Your task to perform on an android device: Open the phone app and click the voicemail tab. Image 0: 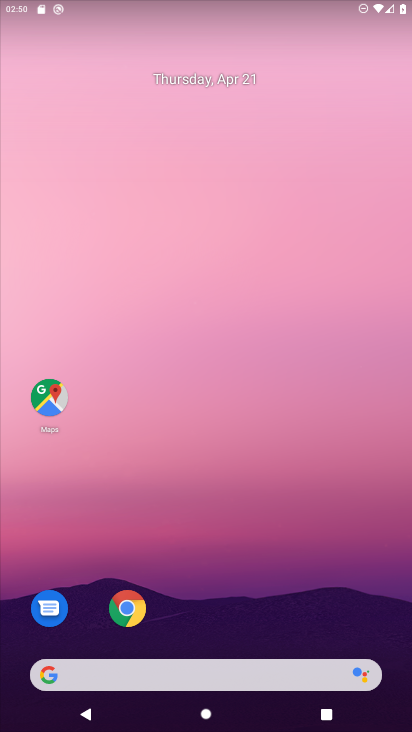
Step 0: drag from (212, 525) to (244, 224)
Your task to perform on an android device: Open the phone app and click the voicemail tab. Image 1: 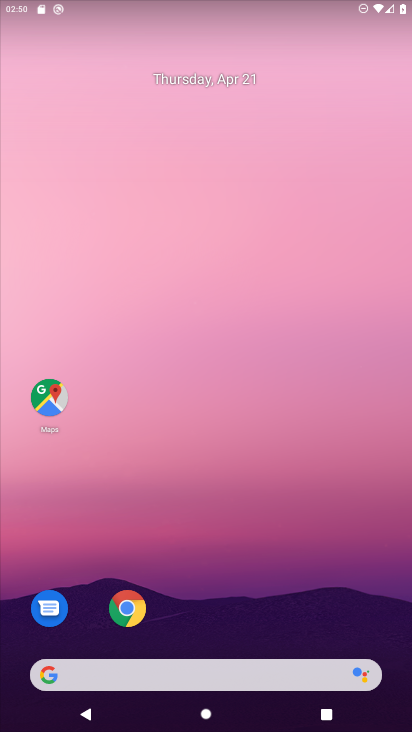
Step 1: drag from (238, 495) to (287, 107)
Your task to perform on an android device: Open the phone app and click the voicemail tab. Image 2: 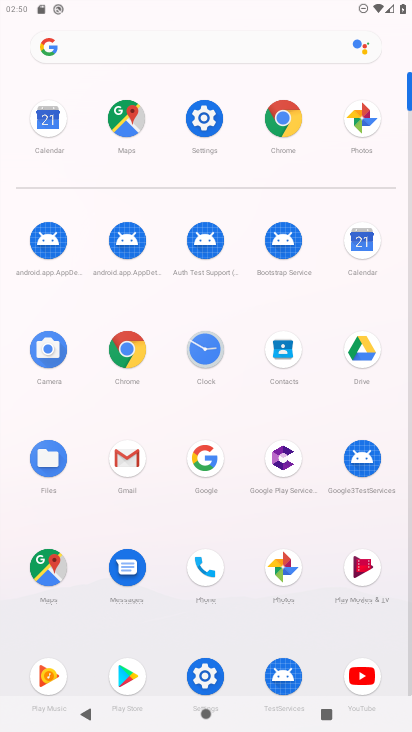
Step 2: click (204, 566)
Your task to perform on an android device: Open the phone app and click the voicemail tab. Image 3: 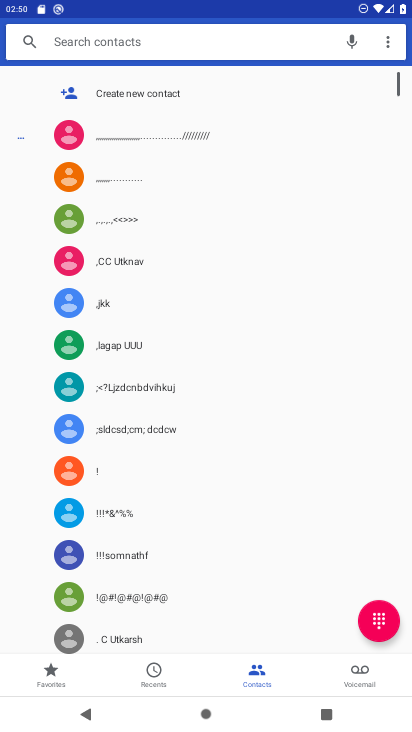
Step 3: click (366, 674)
Your task to perform on an android device: Open the phone app and click the voicemail tab. Image 4: 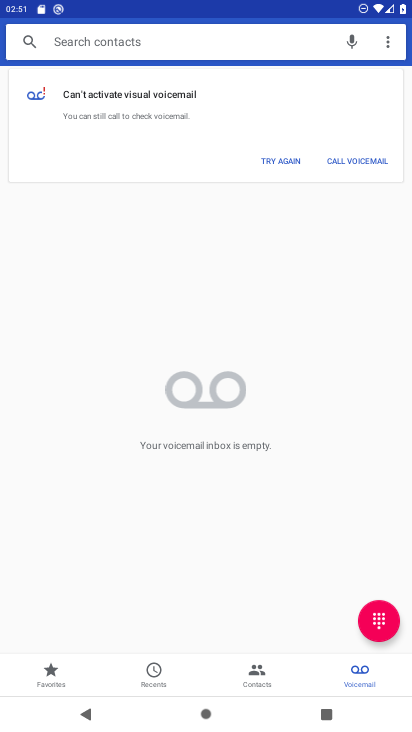
Step 4: task complete